Your task to perform on an android device: Open the Play Movies app and select the watchlist tab. Image 0: 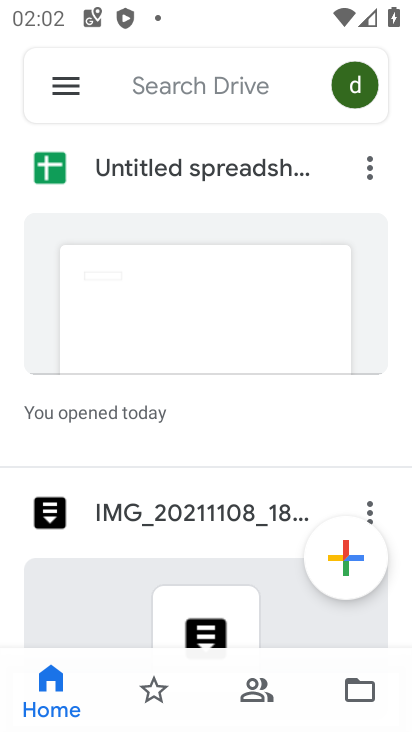
Step 0: press home button
Your task to perform on an android device: Open the Play Movies app and select the watchlist tab. Image 1: 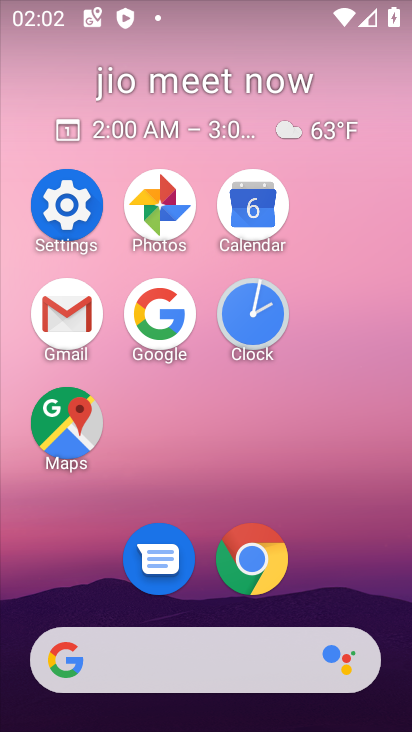
Step 1: drag from (335, 526) to (369, 189)
Your task to perform on an android device: Open the Play Movies app and select the watchlist tab. Image 2: 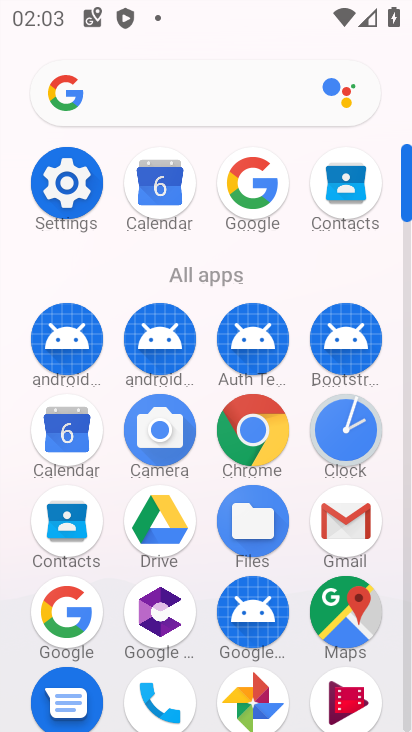
Step 2: click (343, 712)
Your task to perform on an android device: Open the Play Movies app and select the watchlist tab. Image 3: 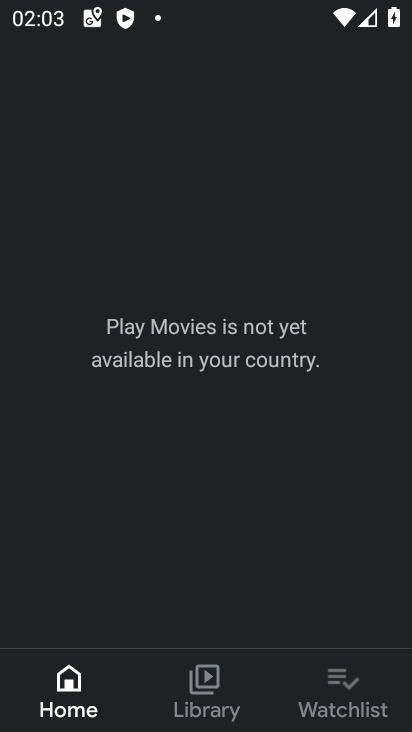
Step 3: click (349, 698)
Your task to perform on an android device: Open the Play Movies app and select the watchlist tab. Image 4: 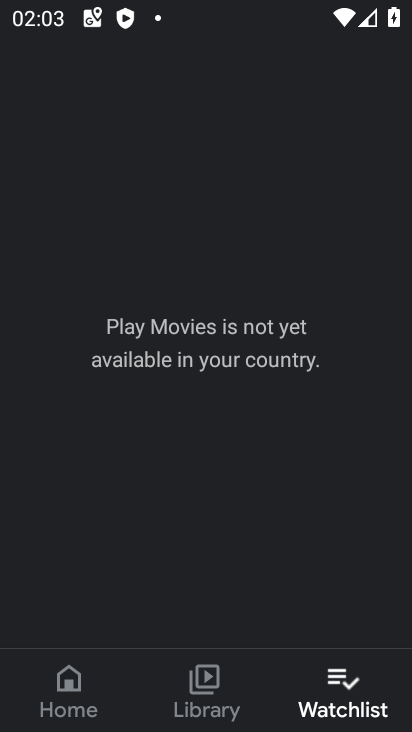
Step 4: task complete